Your task to perform on an android device: toggle improve location accuracy Image 0: 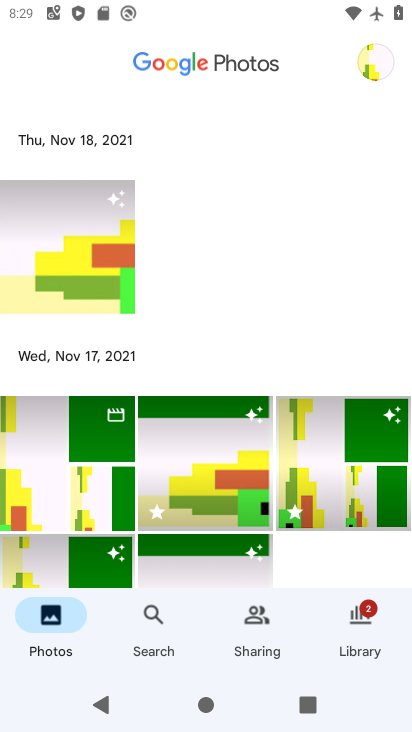
Step 0: press home button
Your task to perform on an android device: toggle improve location accuracy Image 1: 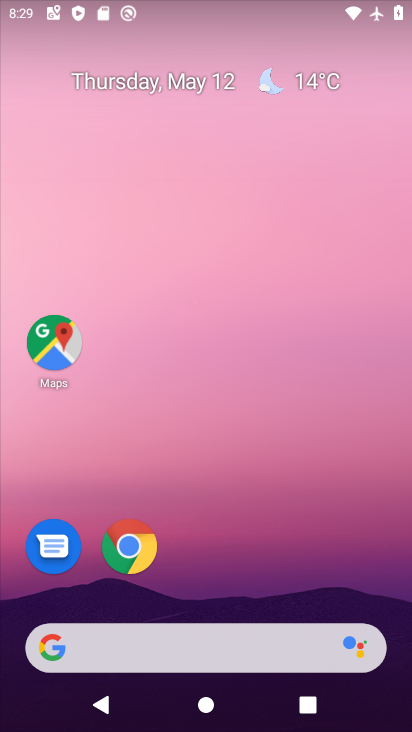
Step 1: drag from (210, 645) to (293, 65)
Your task to perform on an android device: toggle improve location accuracy Image 2: 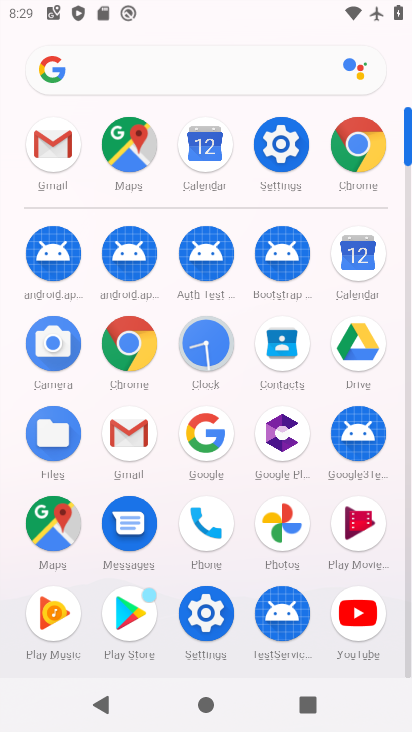
Step 2: click (300, 173)
Your task to perform on an android device: toggle improve location accuracy Image 3: 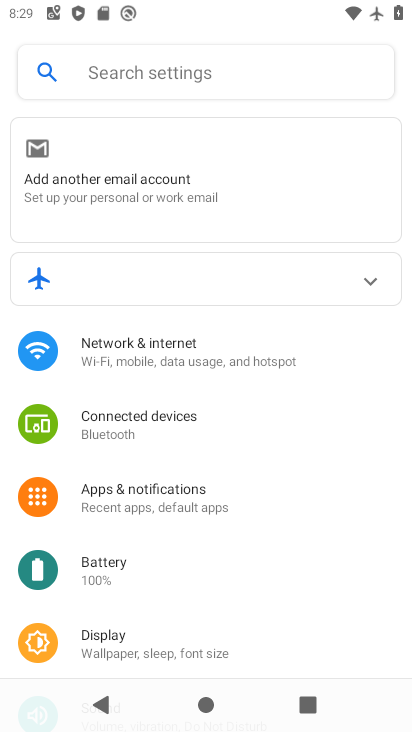
Step 3: drag from (192, 402) to (362, 207)
Your task to perform on an android device: toggle improve location accuracy Image 4: 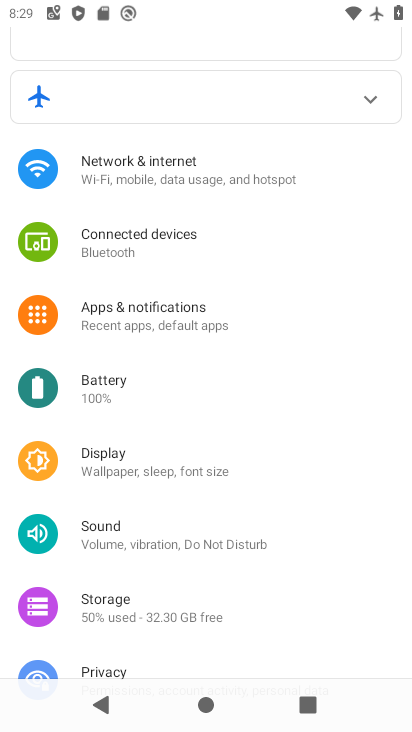
Step 4: drag from (163, 587) to (333, 215)
Your task to perform on an android device: toggle improve location accuracy Image 5: 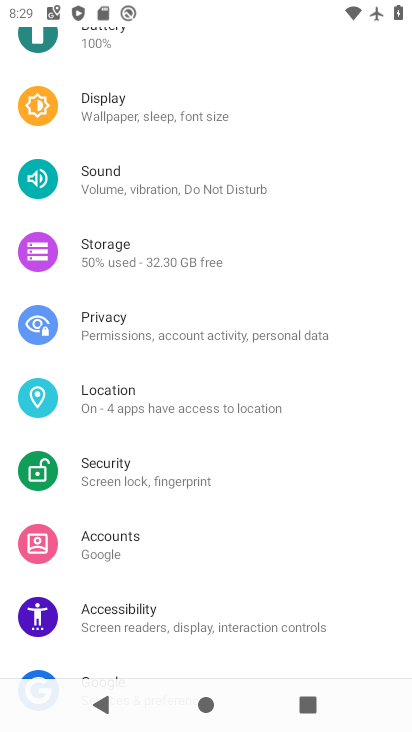
Step 5: click (183, 410)
Your task to perform on an android device: toggle improve location accuracy Image 6: 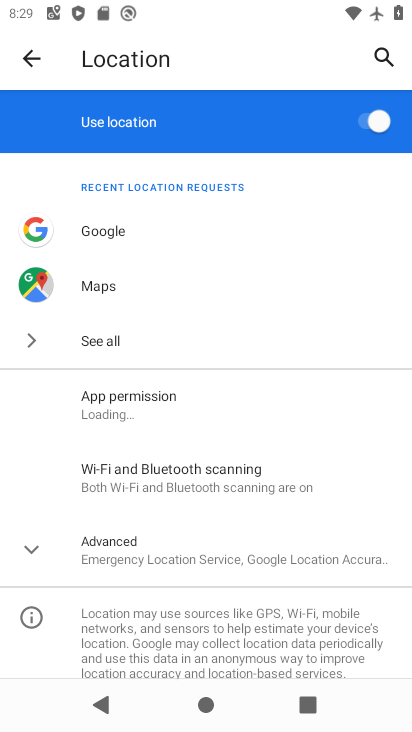
Step 6: click (162, 548)
Your task to perform on an android device: toggle improve location accuracy Image 7: 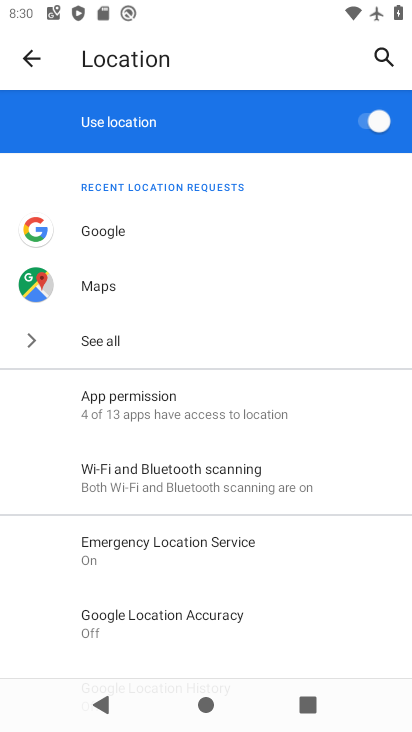
Step 7: click (199, 625)
Your task to perform on an android device: toggle improve location accuracy Image 8: 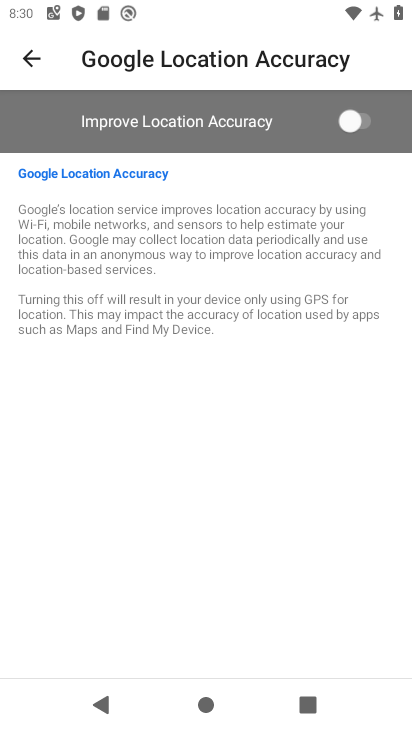
Step 8: click (363, 121)
Your task to perform on an android device: toggle improve location accuracy Image 9: 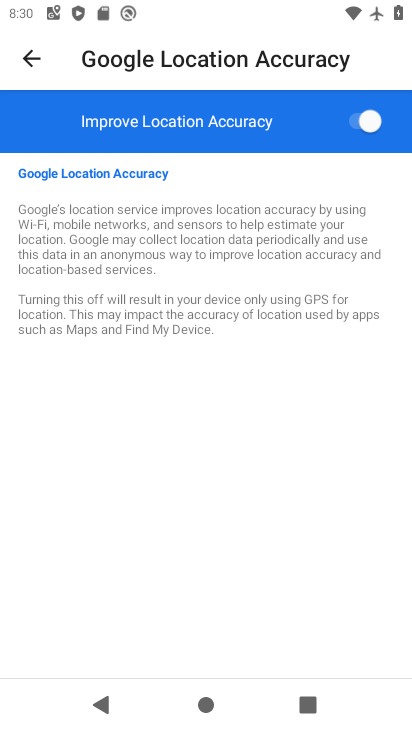
Step 9: task complete